Your task to perform on an android device: toggle sleep mode Image 0: 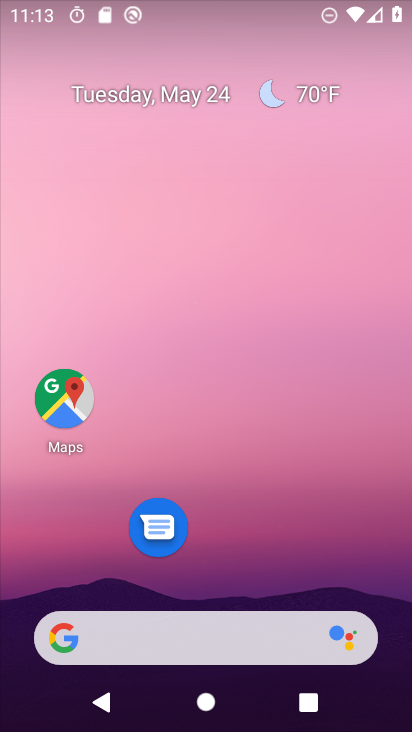
Step 0: drag from (265, 545) to (280, 59)
Your task to perform on an android device: toggle sleep mode Image 1: 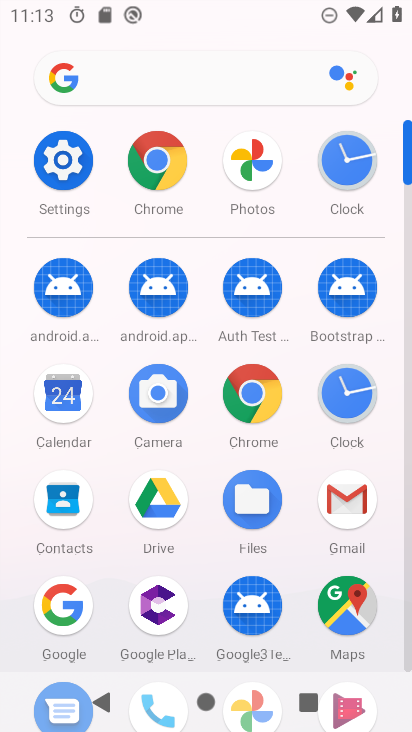
Step 1: click (66, 163)
Your task to perform on an android device: toggle sleep mode Image 2: 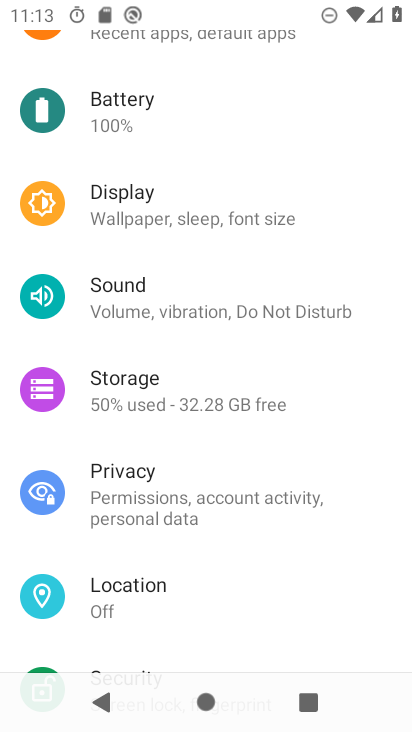
Step 2: drag from (208, 150) to (224, 254)
Your task to perform on an android device: toggle sleep mode Image 3: 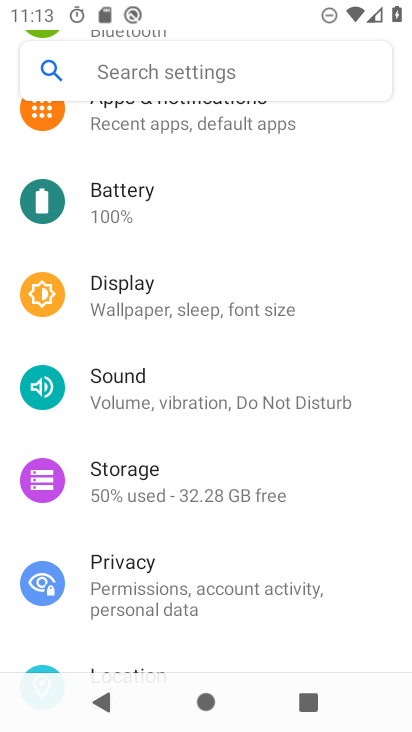
Step 3: click (151, 302)
Your task to perform on an android device: toggle sleep mode Image 4: 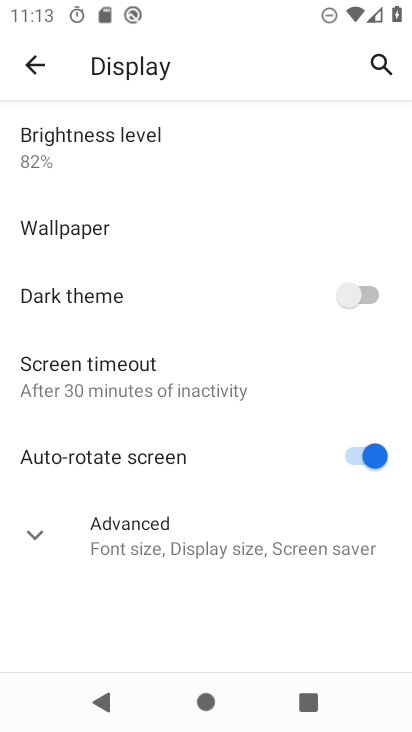
Step 4: click (140, 382)
Your task to perform on an android device: toggle sleep mode Image 5: 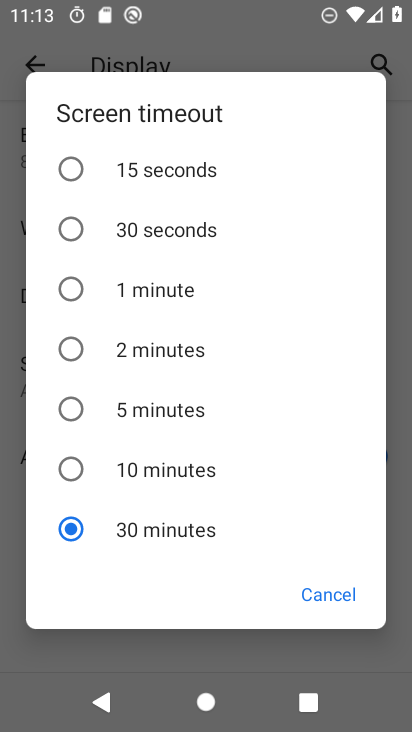
Step 5: click (66, 327)
Your task to perform on an android device: toggle sleep mode Image 6: 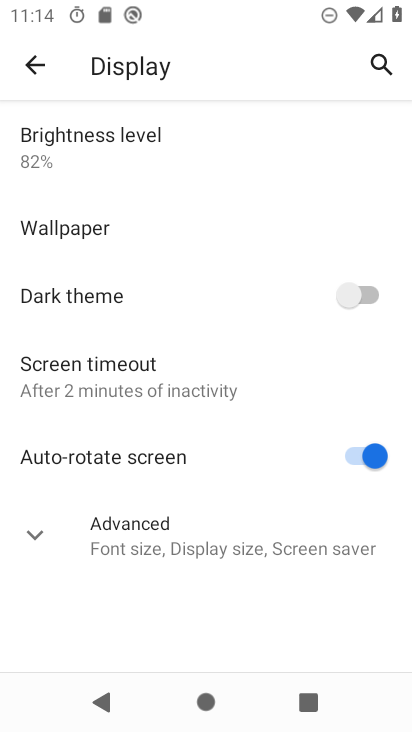
Step 6: task complete